Your task to perform on an android device: create a new album in the google photos Image 0: 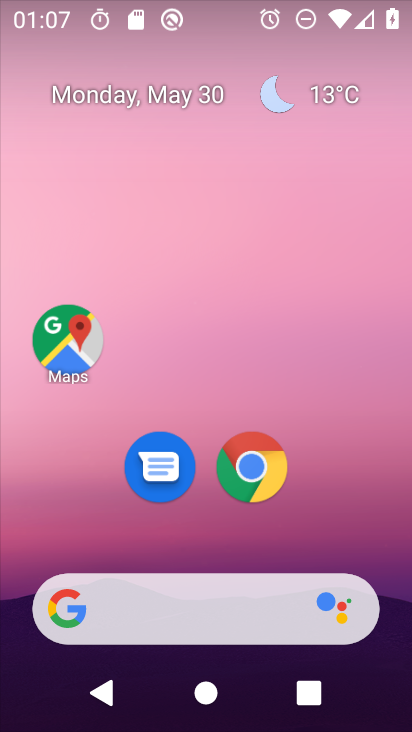
Step 0: drag from (222, 545) to (218, 190)
Your task to perform on an android device: create a new album in the google photos Image 1: 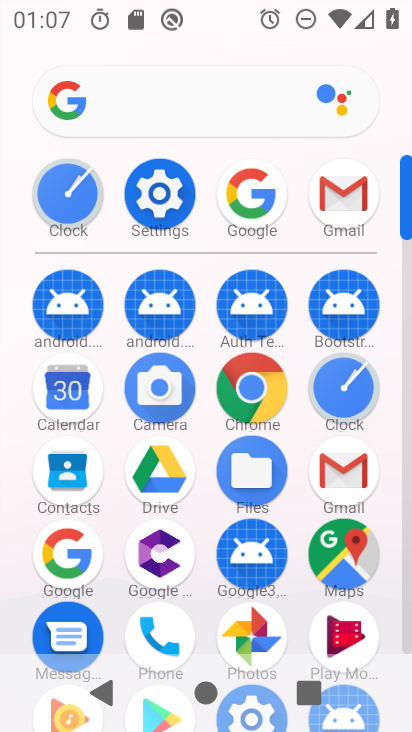
Step 1: drag from (193, 564) to (197, 347)
Your task to perform on an android device: create a new album in the google photos Image 2: 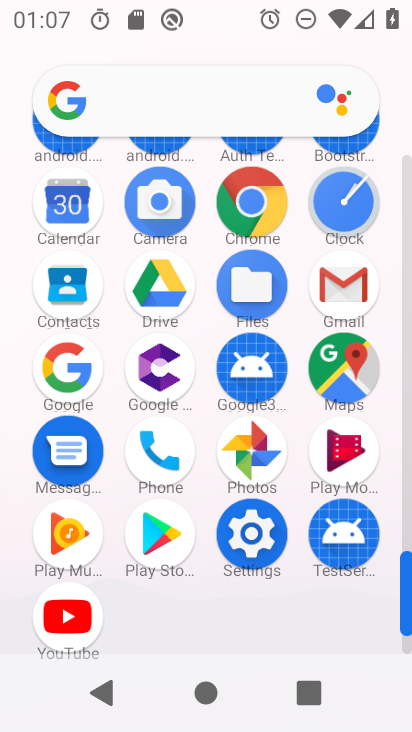
Step 2: click (251, 455)
Your task to perform on an android device: create a new album in the google photos Image 3: 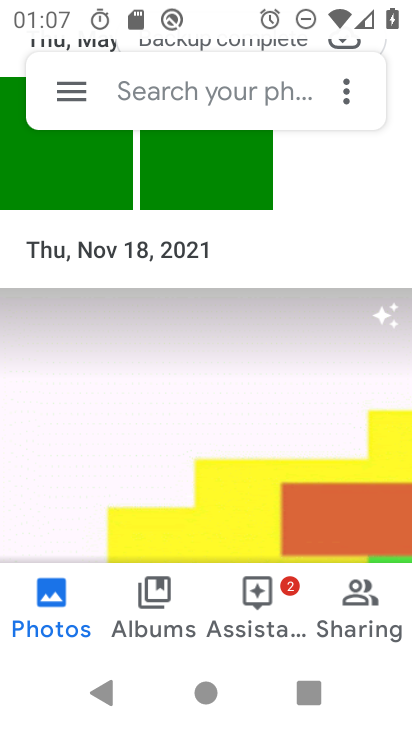
Step 3: click (344, 107)
Your task to perform on an android device: create a new album in the google photos Image 4: 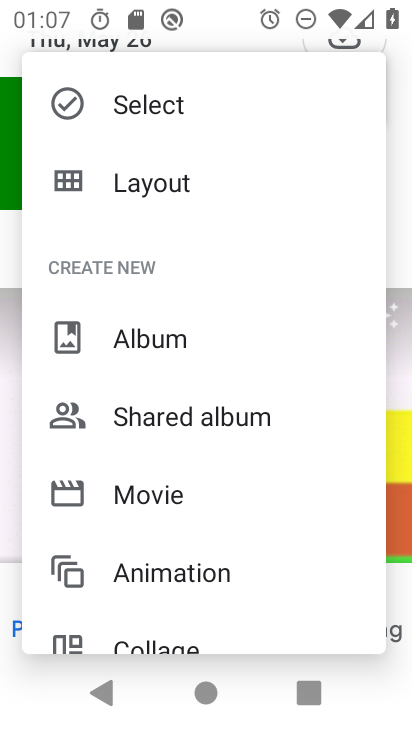
Step 4: click (181, 332)
Your task to perform on an android device: create a new album in the google photos Image 5: 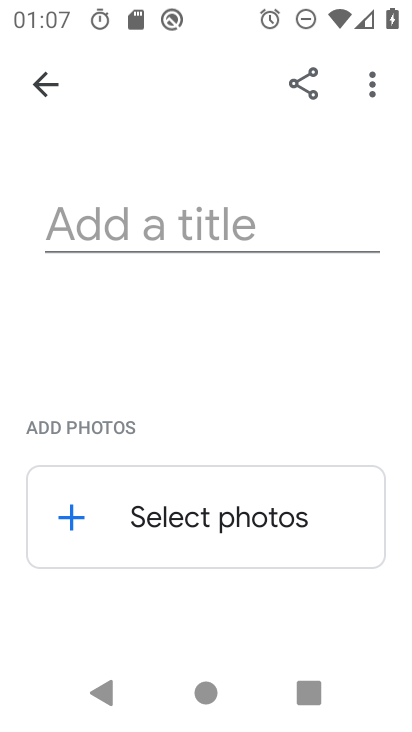
Step 5: click (211, 208)
Your task to perform on an android device: create a new album in the google photos Image 6: 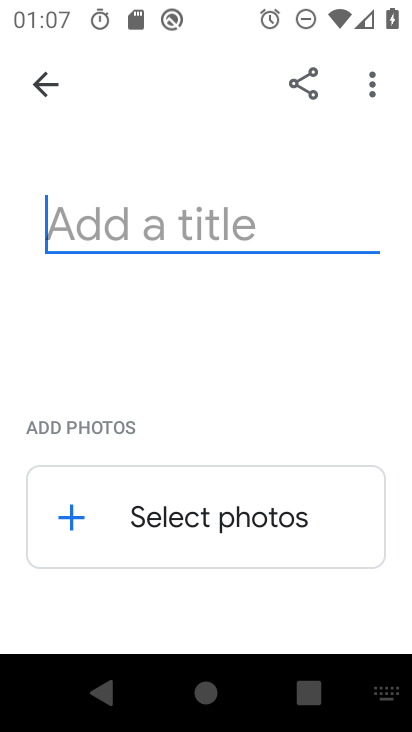
Step 6: type "dfhghf"
Your task to perform on an android device: create a new album in the google photos Image 7: 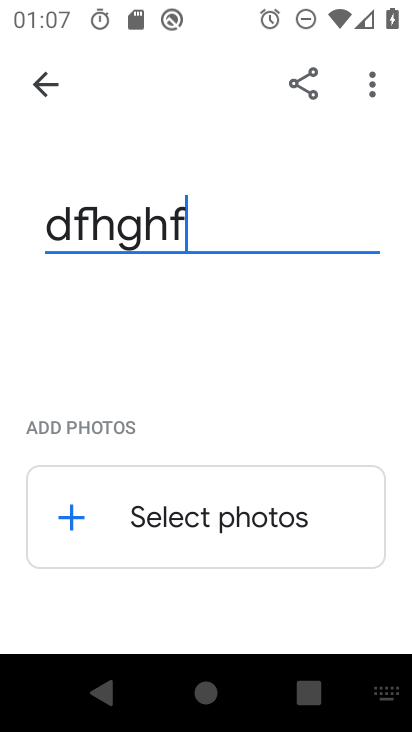
Step 7: click (71, 525)
Your task to perform on an android device: create a new album in the google photos Image 8: 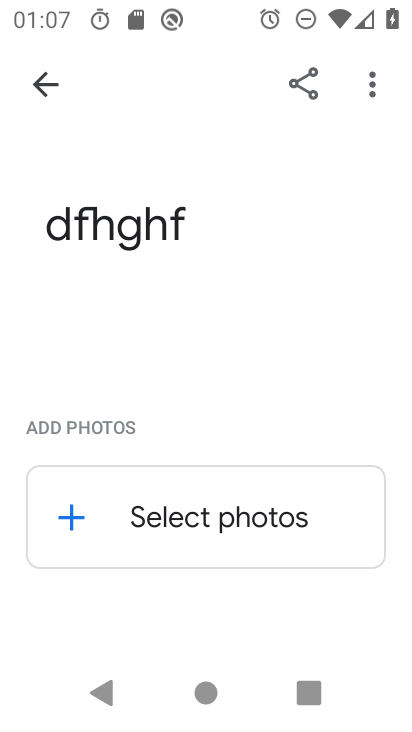
Step 8: click (73, 521)
Your task to perform on an android device: create a new album in the google photos Image 9: 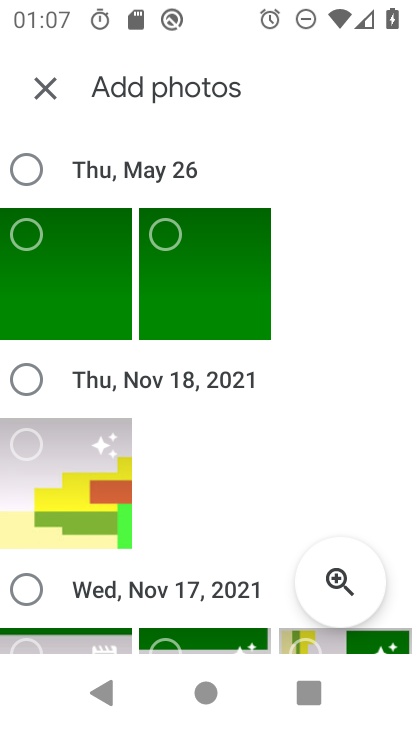
Step 9: click (63, 294)
Your task to perform on an android device: create a new album in the google photos Image 10: 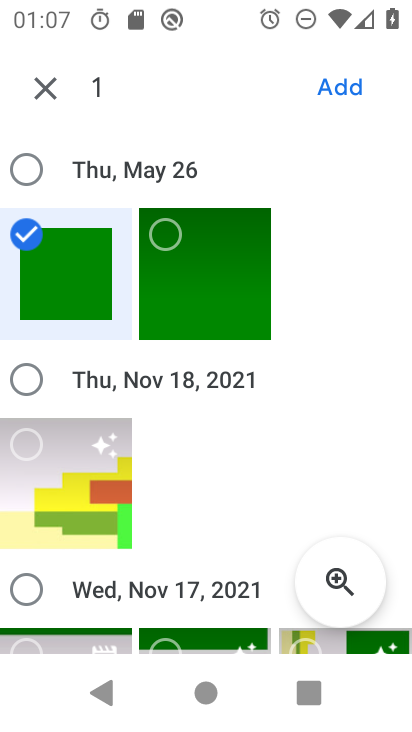
Step 10: task complete